Your task to perform on an android device: Open Google Chrome and click the shortcut for Amazon.com Image 0: 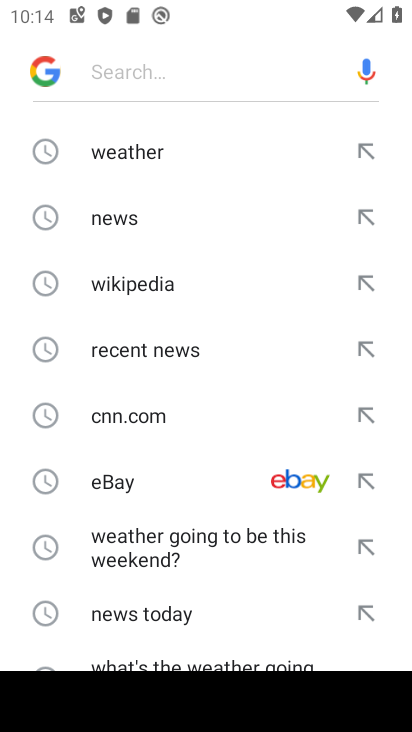
Step 0: press home button
Your task to perform on an android device: Open Google Chrome and click the shortcut for Amazon.com Image 1: 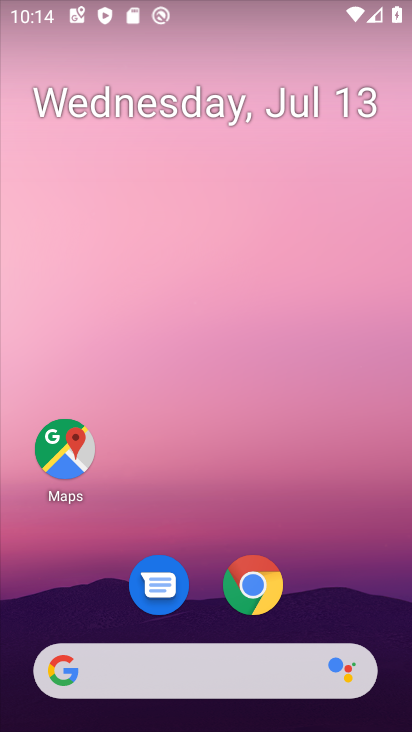
Step 1: click (263, 580)
Your task to perform on an android device: Open Google Chrome and click the shortcut for Amazon.com Image 2: 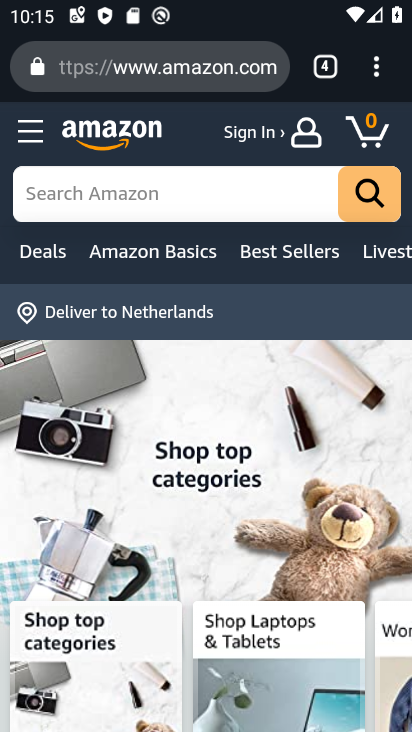
Step 2: task complete